Your task to perform on an android device: Search for vegetarian restaurants on Maps Image 0: 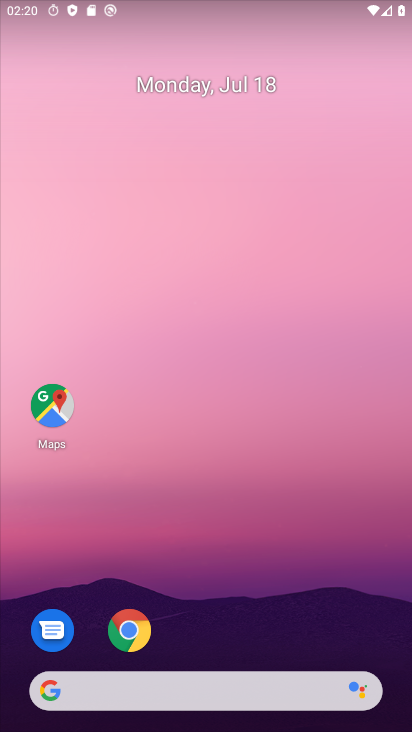
Step 0: click (34, 403)
Your task to perform on an android device: Search for vegetarian restaurants on Maps Image 1: 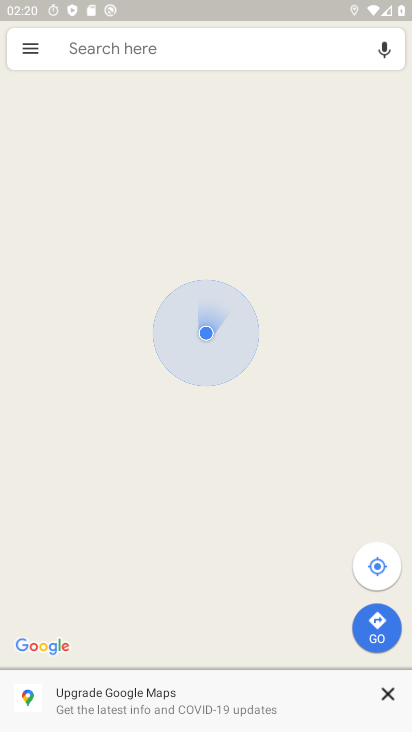
Step 1: click (117, 51)
Your task to perform on an android device: Search for vegetarian restaurants on Maps Image 2: 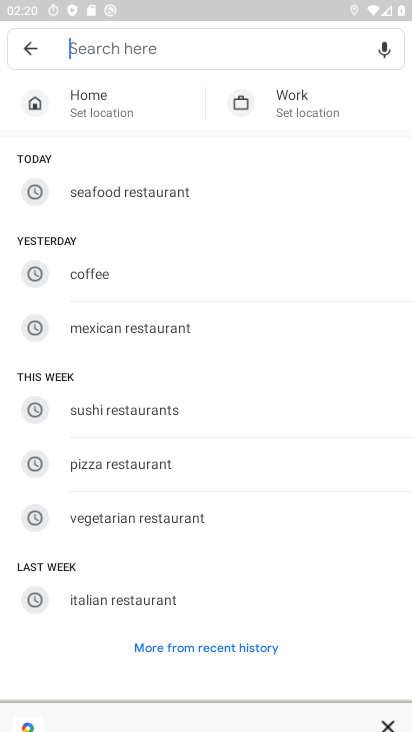
Step 2: click (117, 61)
Your task to perform on an android device: Search for vegetarian restaurants on Maps Image 3: 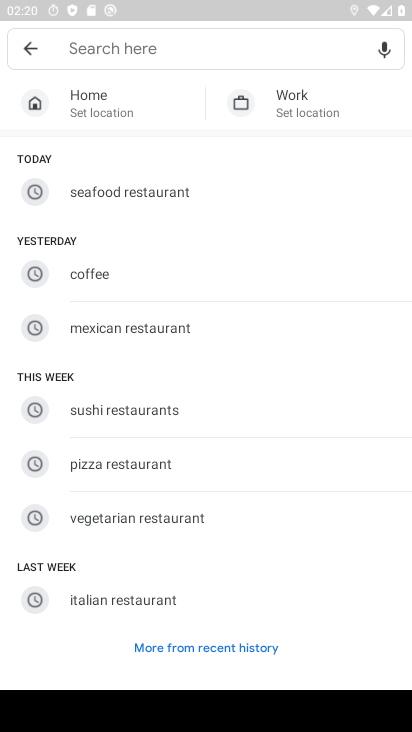
Step 3: click (105, 524)
Your task to perform on an android device: Search for vegetarian restaurants on Maps Image 4: 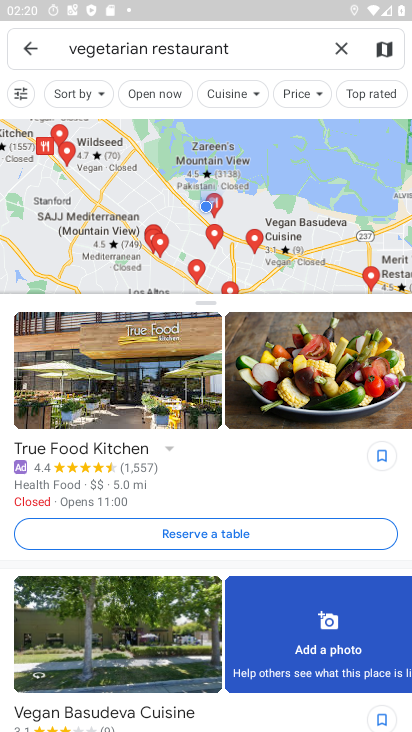
Step 4: task complete